Your task to perform on an android device: turn on wifi Image 0: 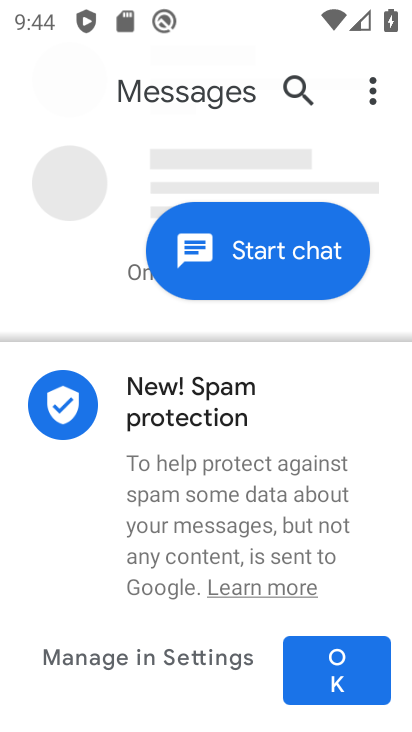
Step 0: press home button
Your task to perform on an android device: turn on wifi Image 1: 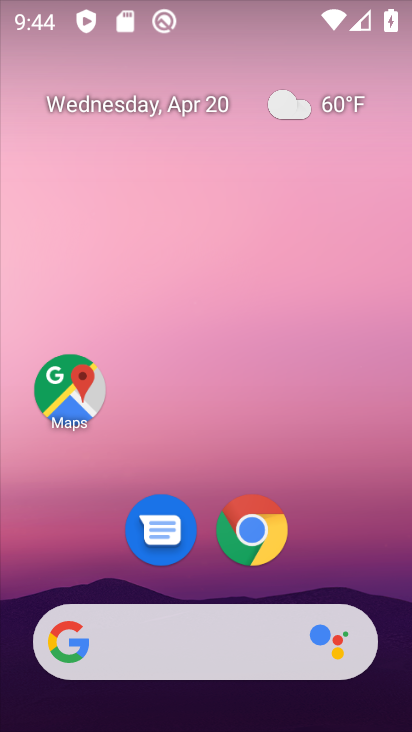
Step 1: drag from (378, 494) to (352, 134)
Your task to perform on an android device: turn on wifi Image 2: 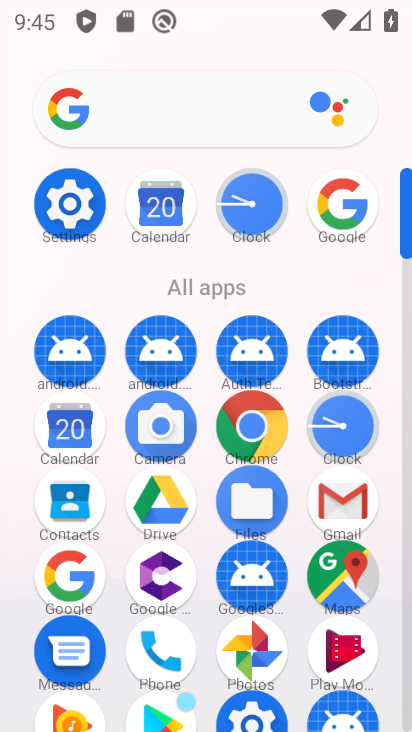
Step 2: click (76, 196)
Your task to perform on an android device: turn on wifi Image 3: 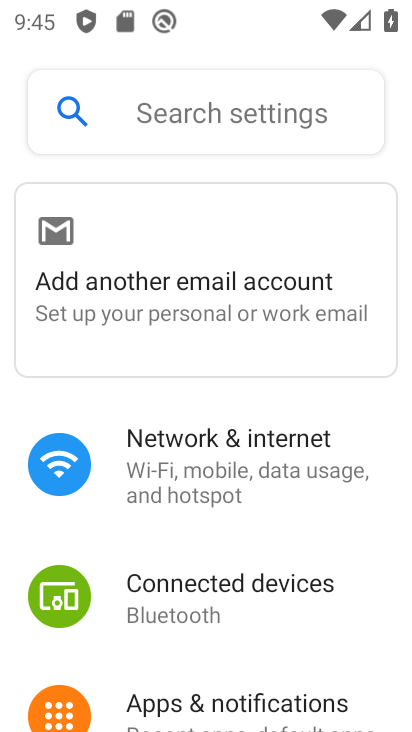
Step 3: click (224, 457)
Your task to perform on an android device: turn on wifi Image 4: 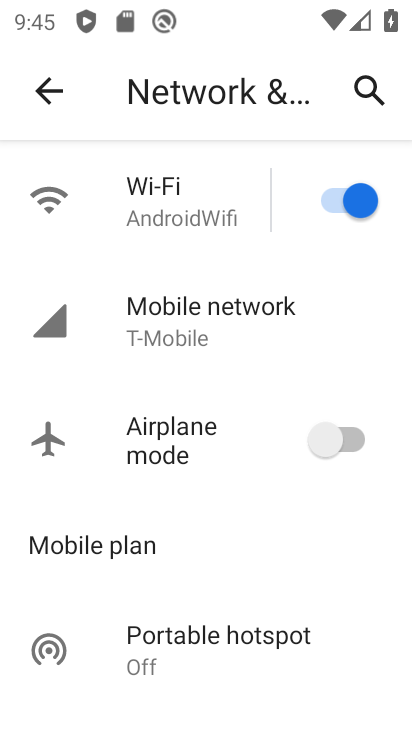
Step 4: task complete